Your task to perform on an android device: What's on my calendar tomorrow? Image 0: 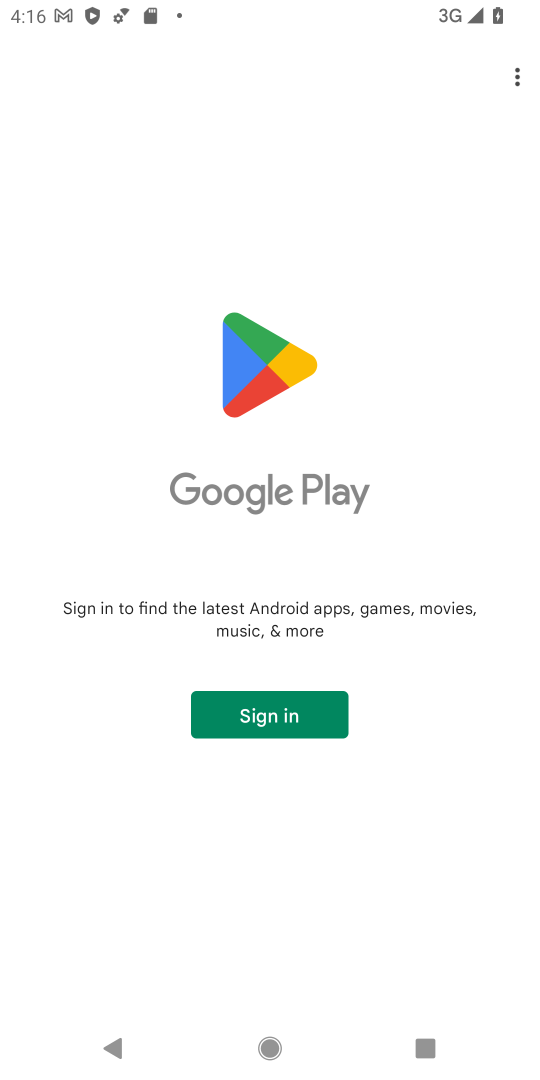
Step 0: press home button
Your task to perform on an android device: What's on my calendar tomorrow? Image 1: 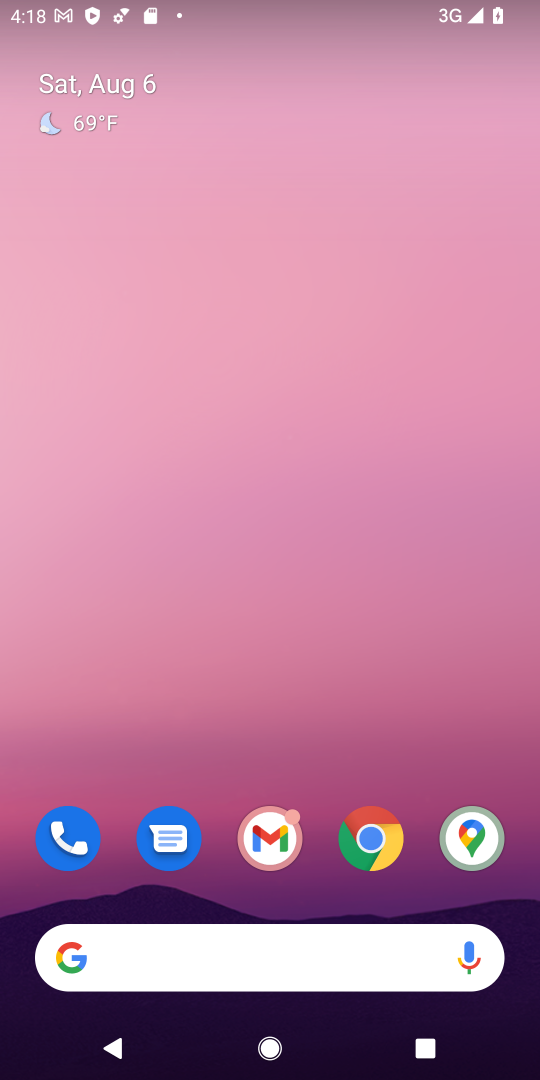
Step 1: drag from (125, 611) to (327, 101)
Your task to perform on an android device: What's on my calendar tomorrow? Image 2: 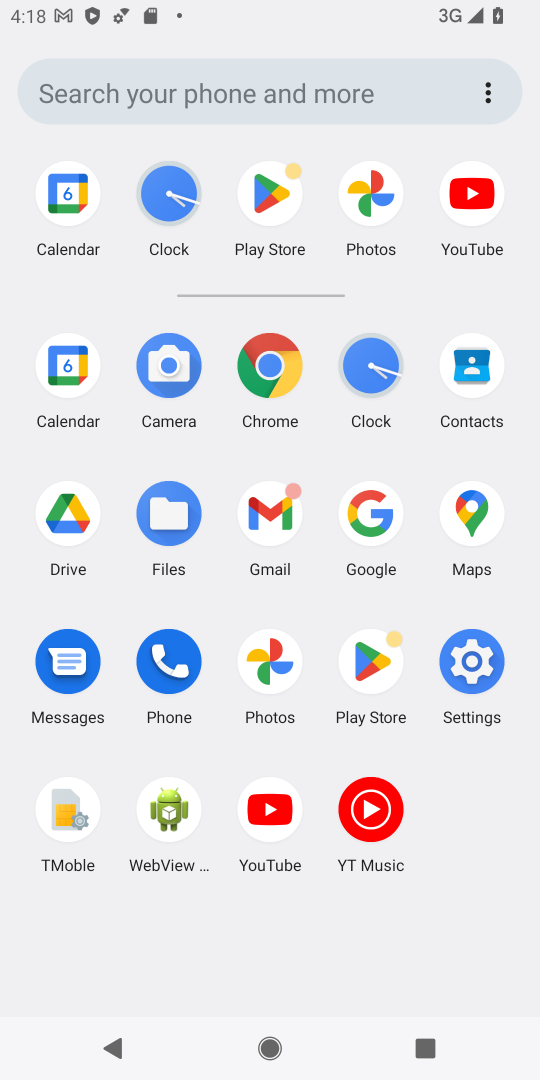
Step 2: click (63, 366)
Your task to perform on an android device: What's on my calendar tomorrow? Image 3: 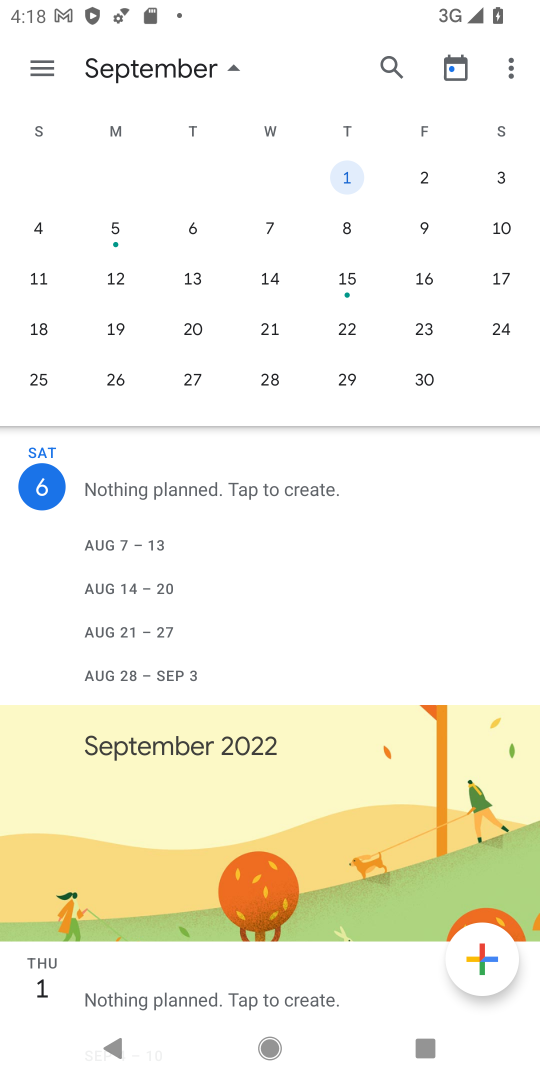
Step 3: drag from (30, 242) to (532, 241)
Your task to perform on an android device: What's on my calendar tomorrow? Image 4: 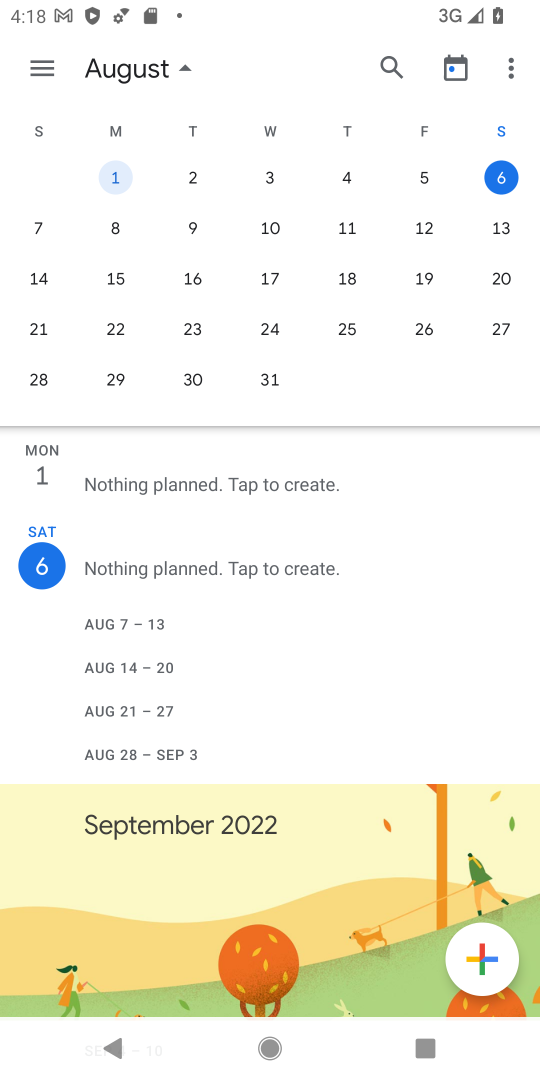
Step 4: click (369, 194)
Your task to perform on an android device: What's on my calendar tomorrow? Image 5: 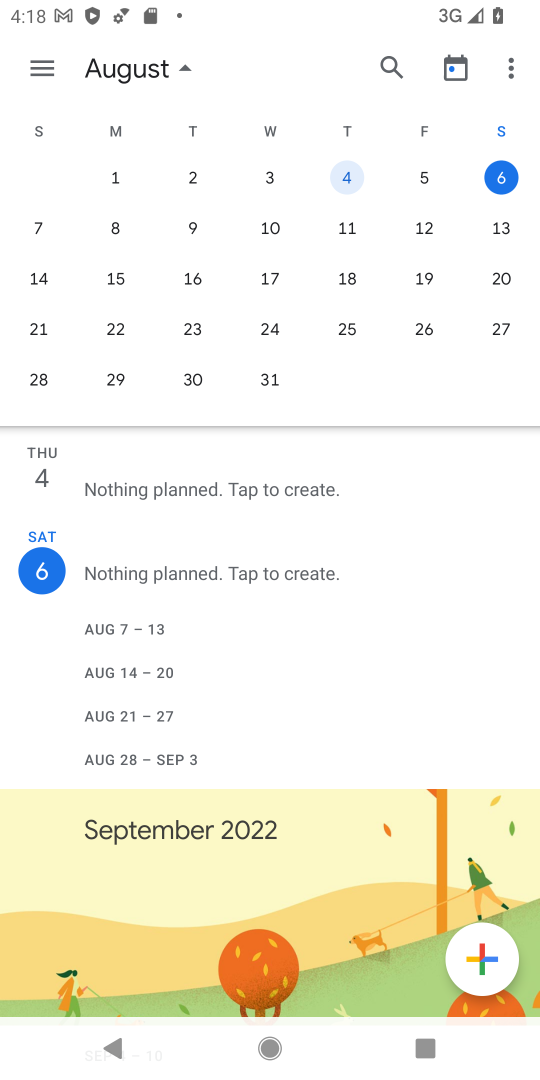
Step 5: click (437, 191)
Your task to perform on an android device: What's on my calendar tomorrow? Image 6: 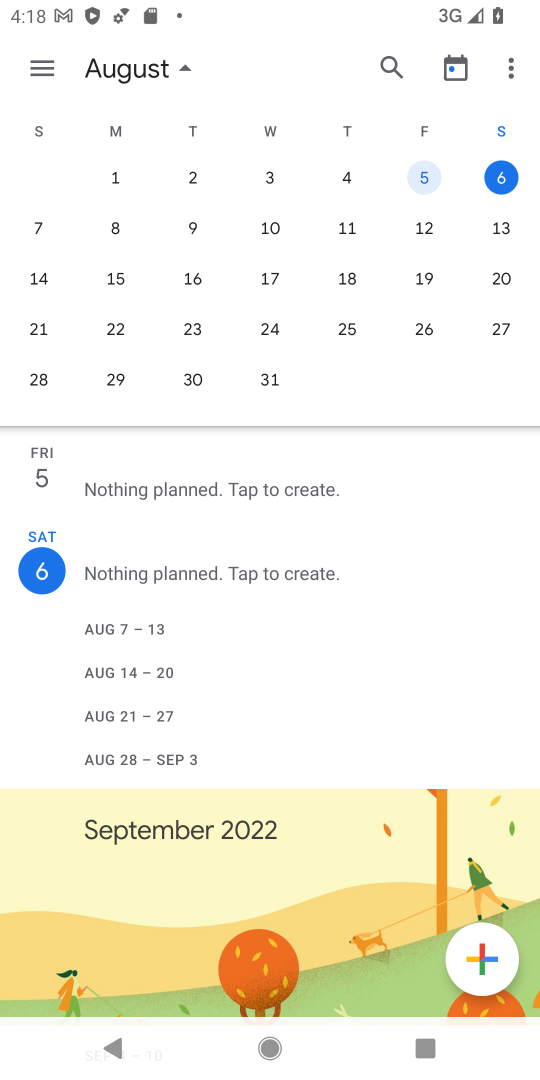
Step 6: task complete